Your task to perform on an android device: What is the news today? Image 0: 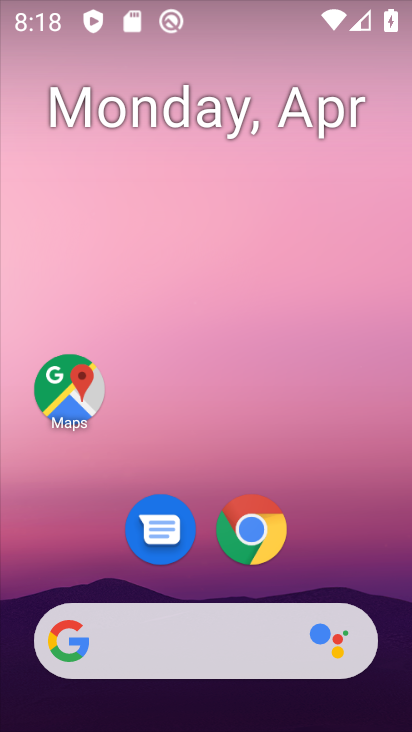
Step 0: drag from (346, 546) to (352, 212)
Your task to perform on an android device: What is the news today? Image 1: 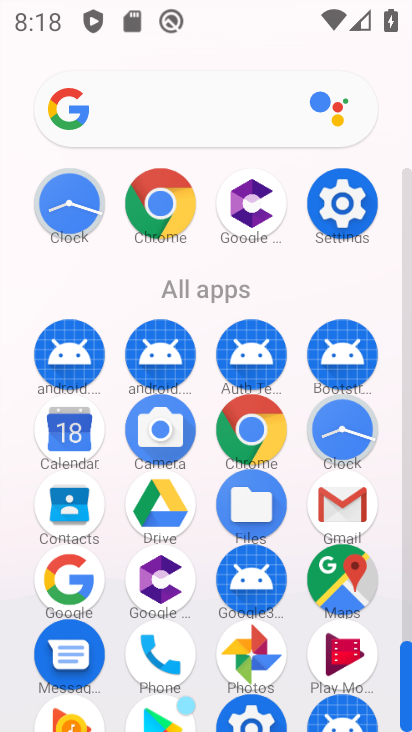
Step 1: click (258, 435)
Your task to perform on an android device: What is the news today? Image 2: 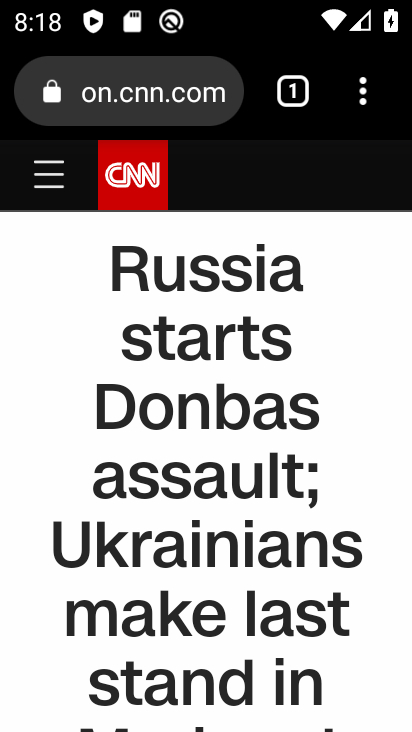
Step 2: click (298, 95)
Your task to perform on an android device: What is the news today? Image 3: 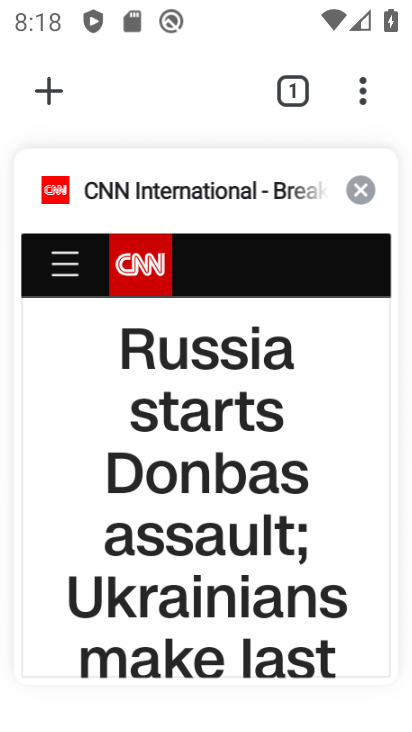
Step 3: click (46, 74)
Your task to perform on an android device: What is the news today? Image 4: 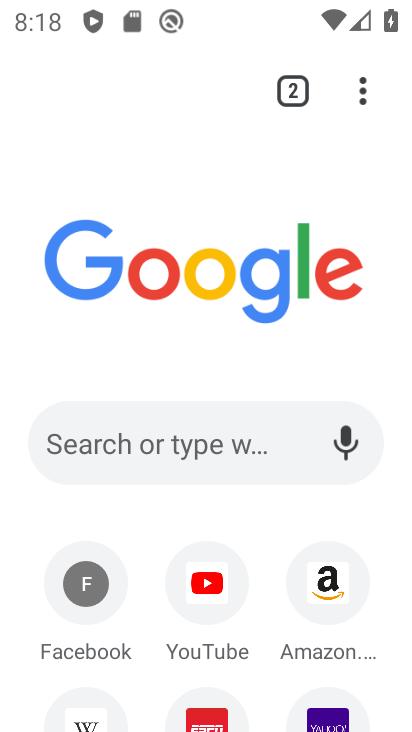
Step 4: click (194, 428)
Your task to perform on an android device: What is the news today? Image 5: 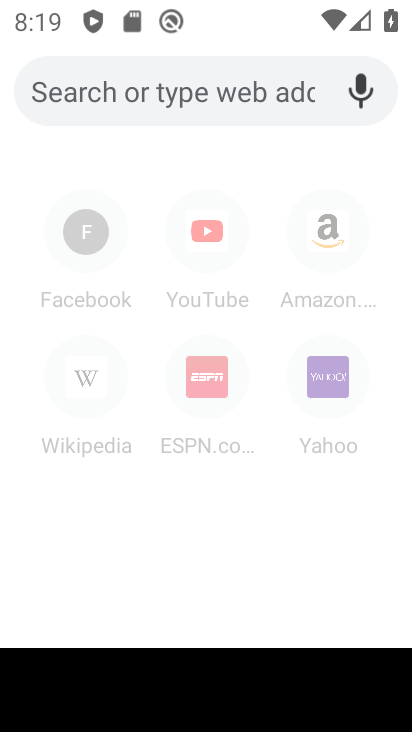
Step 5: type "news today"
Your task to perform on an android device: What is the news today? Image 6: 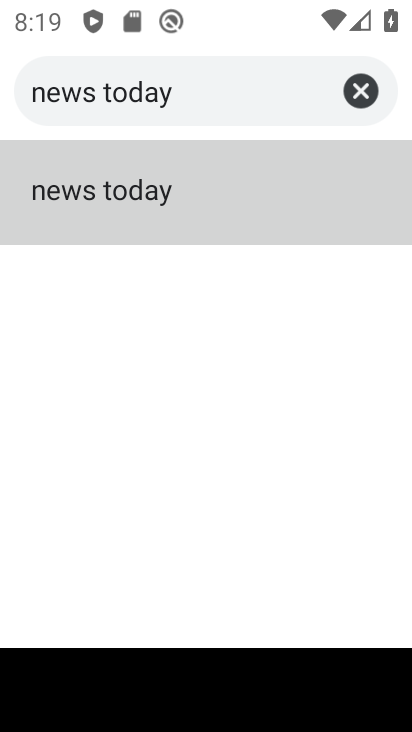
Step 6: click (132, 190)
Your task to perform on an android device: What is the news today? Image 7: 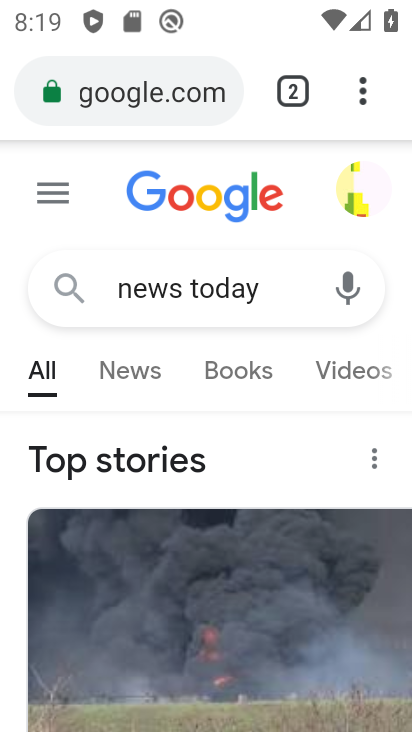
Step 7: task complete